Your task to perform on an android device: toggle sleep mode Image 0: 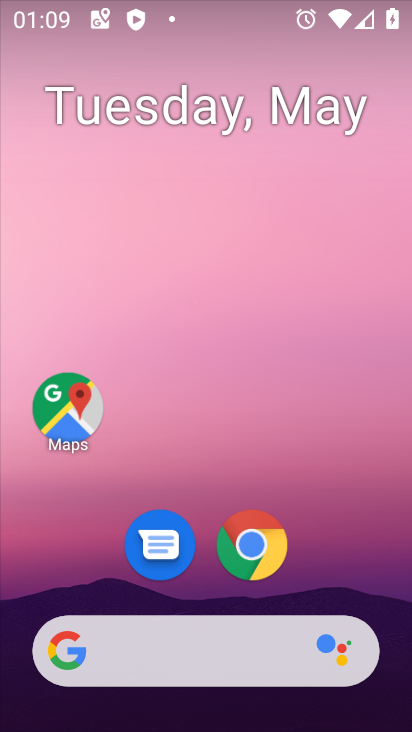
Step 0: drag from (332, 577) to (334, 11)
Your task to perform on an android device: toggle sleep mode Image 1: 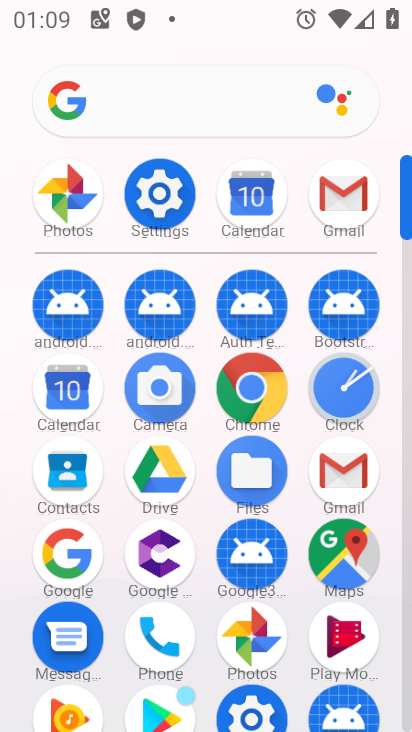
Step 1: click (164, 200)
Your task to perform on an android device: toggle sleep mode Image 2: 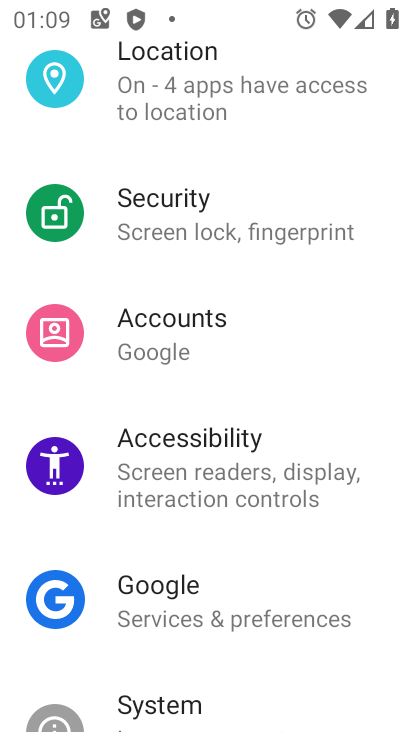
Step 2: drag from (159, 199) to (206, 585)
Your task to perform on an android device: toggle sleep mode Image 3: 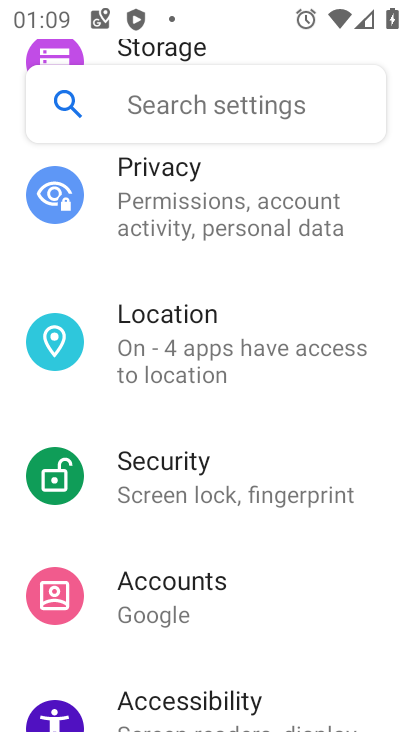
Step 3: drag from (177, 272) to (200, 577)
Your task to perform on an android device: toggle sleep mode Image 4: 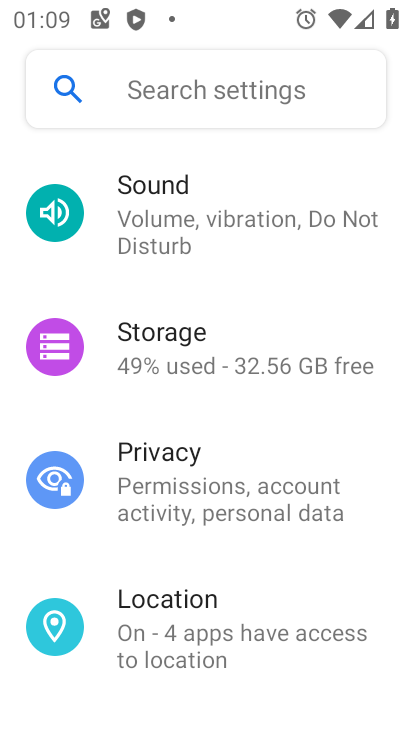
Step 4: drag from (190, 258) to (205, 526)
Your task to perform on an android device: toggle sleep mode Image 5: 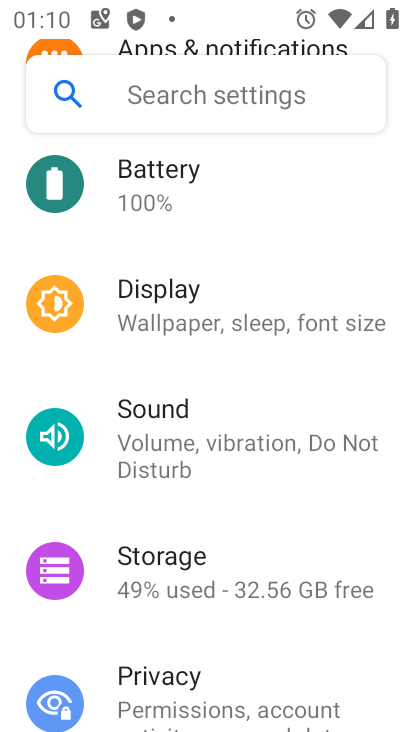
Step 5: click (259, 327)
Your task to perform on an android device: toggle sleep mode Image 6: 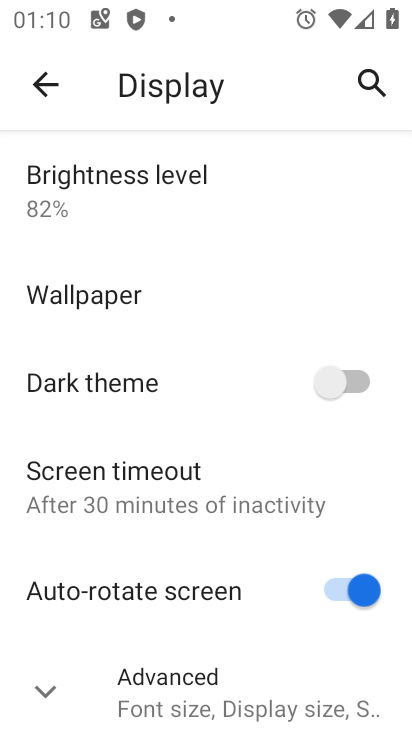
Step 6: click (149, 723)
Your task to perform on an android device: toggle sleep mode Image 7: 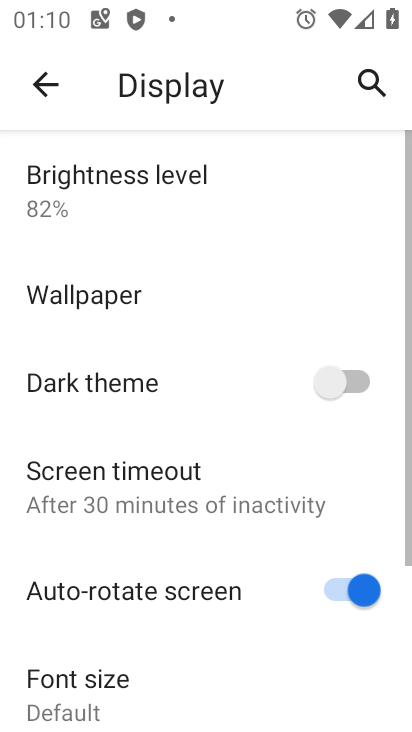
Step 7: task complete